Your task to perform on an android device: toggle wifi Image 0: 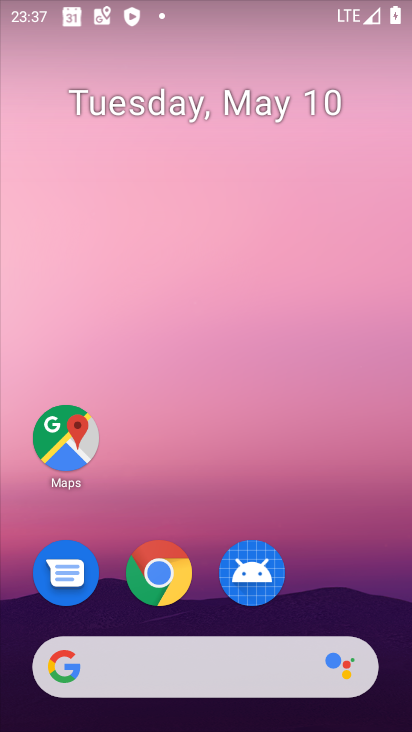
Step 0: drag from (327, 551) to (234, 48)
Your task to perform on an android device: toggle wifi Image 1: 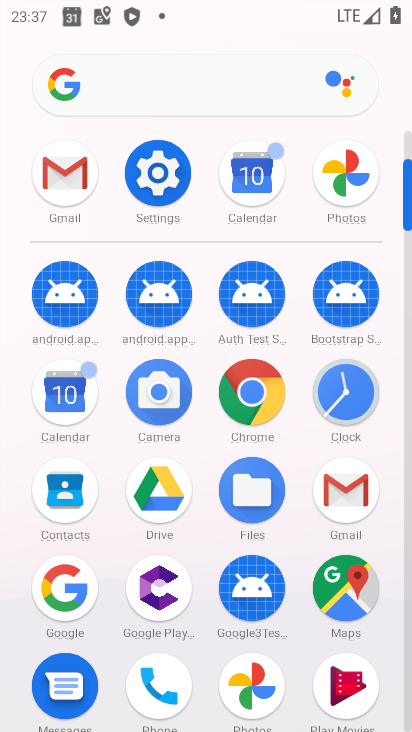
Step 1: click (141, 176)
Your task to perform on an android device: toggle wifi Image 2: 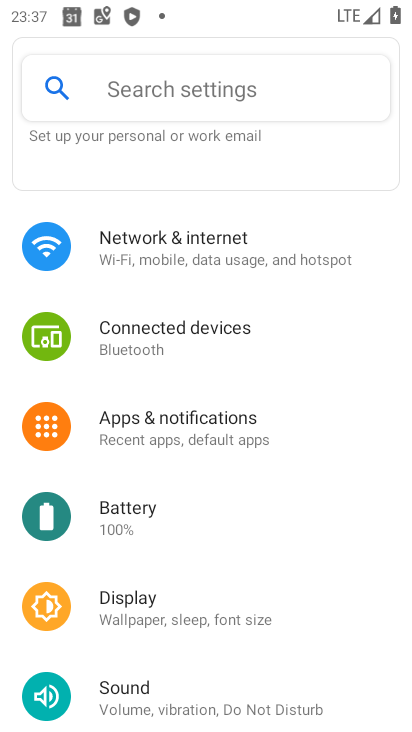
Step 2: click (149, 252)
Your task to perform on an android device: toggle wifi Image 3: 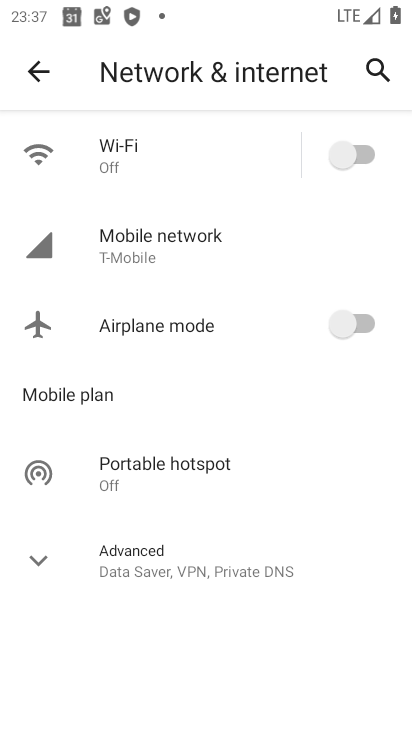
Step 3: click (346, 157)
Your task to perform on an android device: toggle wifi Image 4: 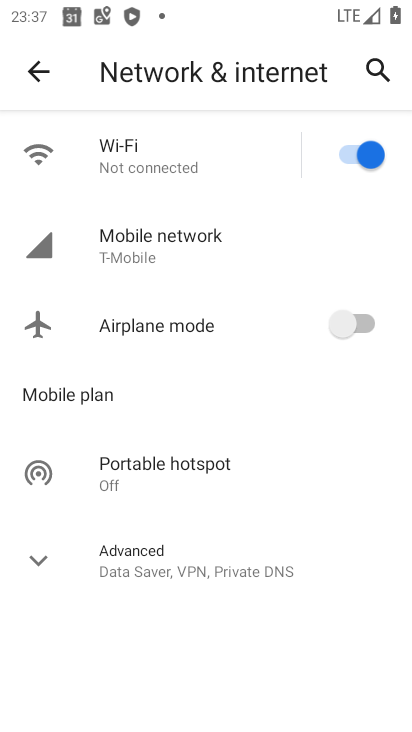
Step 4: task complete